Your task to perform on an android device: turn pop-ups off in chrome Image 0: 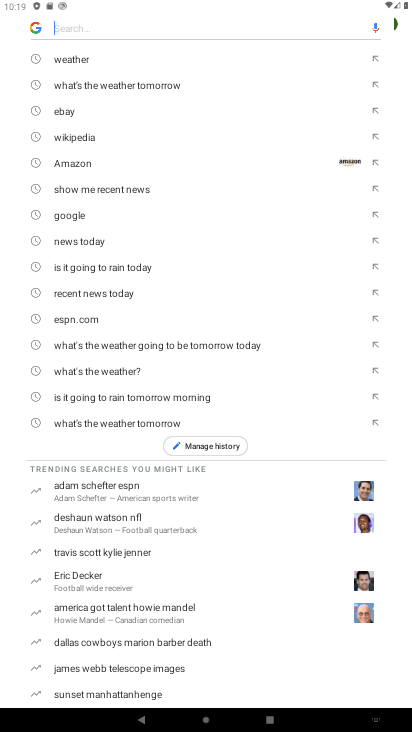
Step 0: press home button
Your task to perform on an android device: turn pop-ups off in chrome Image 1: 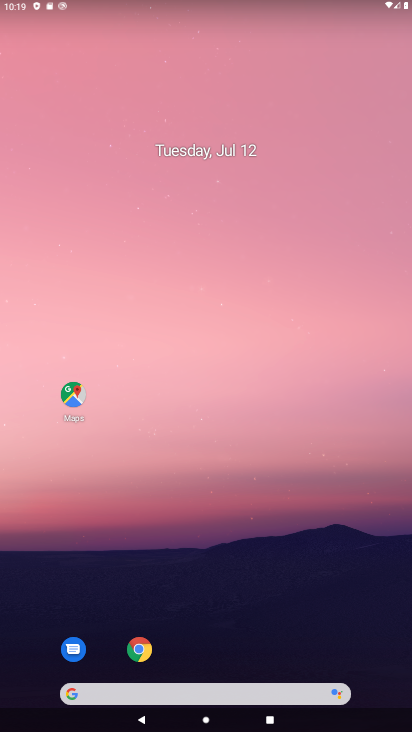
Step 1: click (140, 651)
Your task to perform on an android device: turn pop-ups off in chrome Image 2: 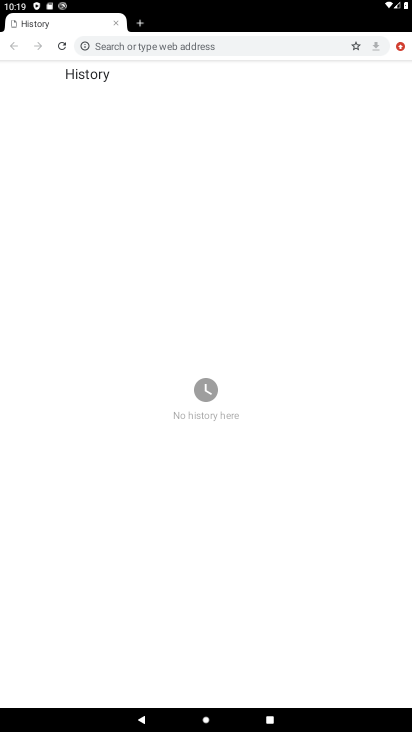
Step 2: click (399, 46)
Your task to perform on an android device: turn pop-ups off in chrome Image 3: 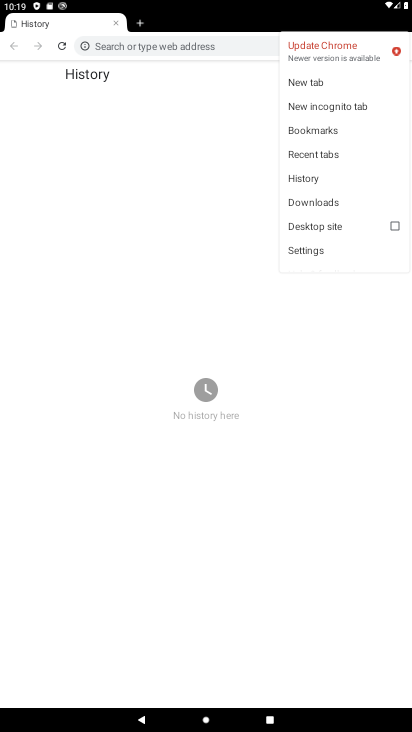
Step 3: click (310, 251)
Your task to perform on an android device: turn pop-ups off in chrome Image 4: 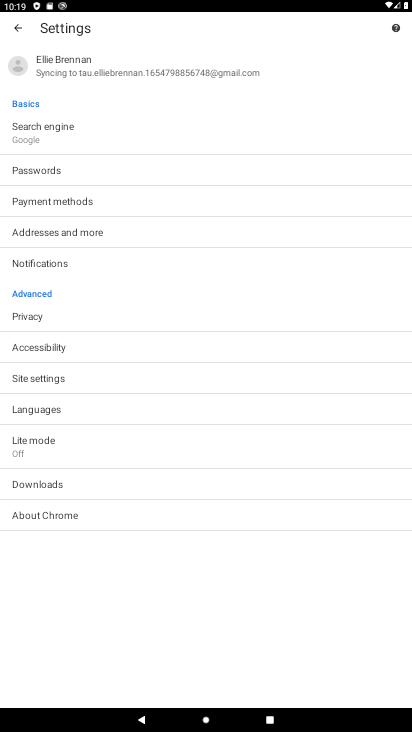
Step 4: click (37, 371)
Your task to perform on an android device: turn pop-ups off in chrome Image 5: 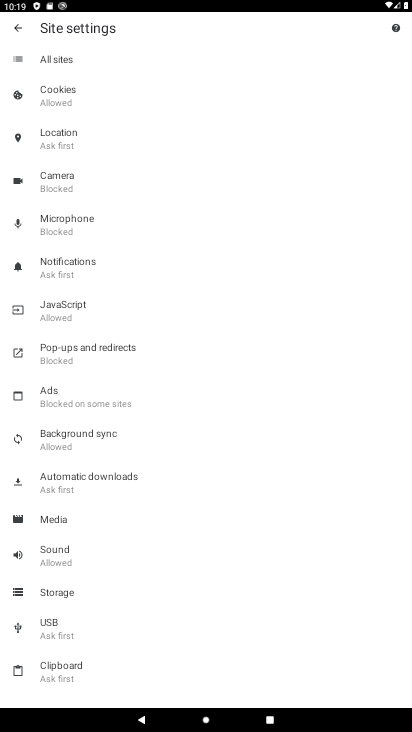
Step 5: click (68, 356)
Your task to perform on an android device: turn pop-ups off in chrome Image 6: 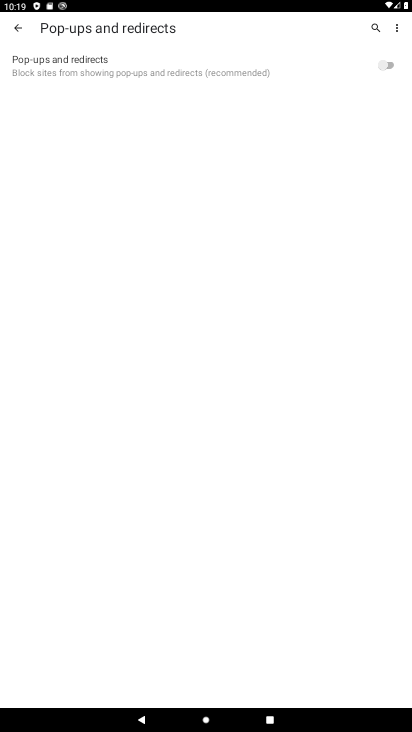
Step 6: task complete